Your task to perform on an android device: Go to display settings Image 0: 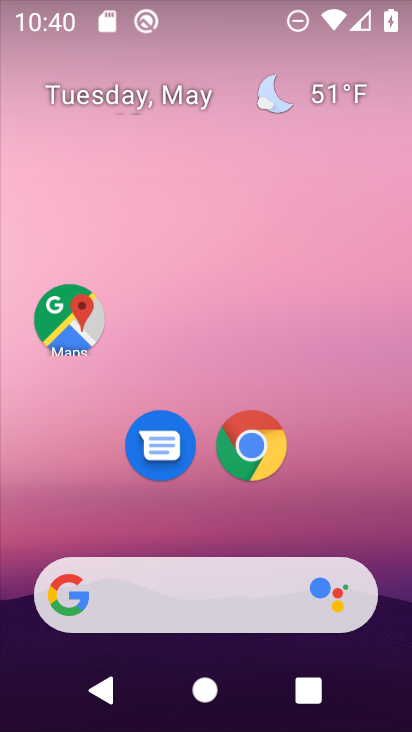
Step 0: drag from (179, 559) to (243, 231)
Your task to perform on an android device: Go to display settings Image 1: 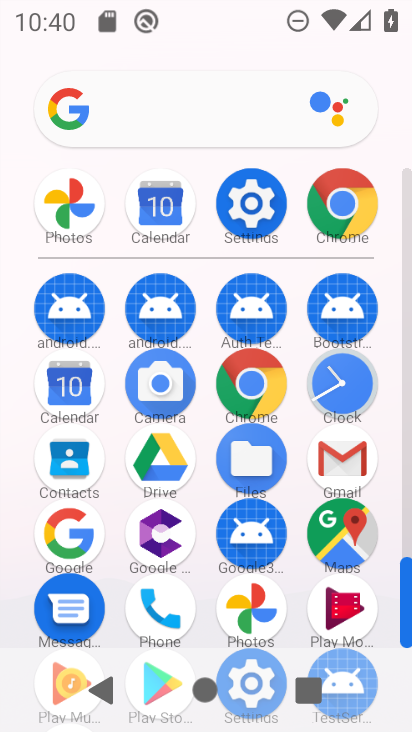
Step 1: click (230, 212)
Your task to perform on an android device: Go to display settings Image 2: 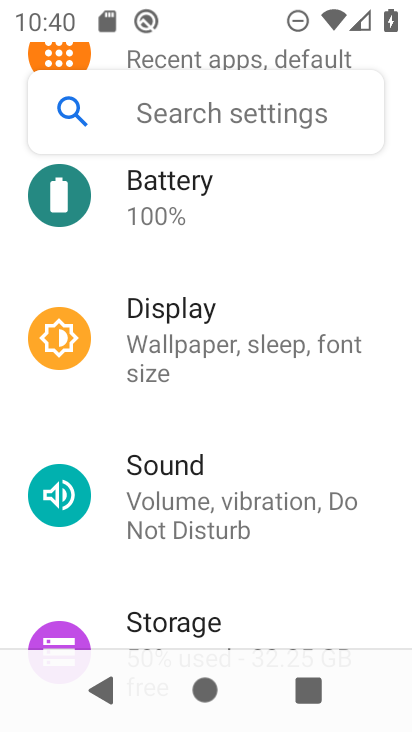
Step 2: click (183, 365)
Your task to perform on an android device: Go to display settings Image 3: 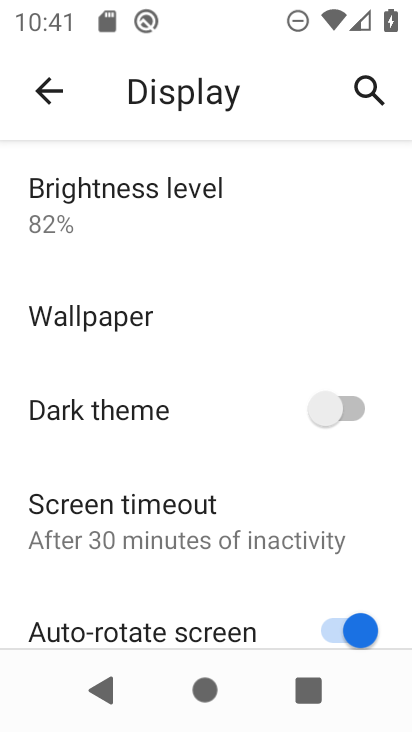
Step 3: task complete